Your task to perform on an android device: turn pop-ups off in chrome Image 0: 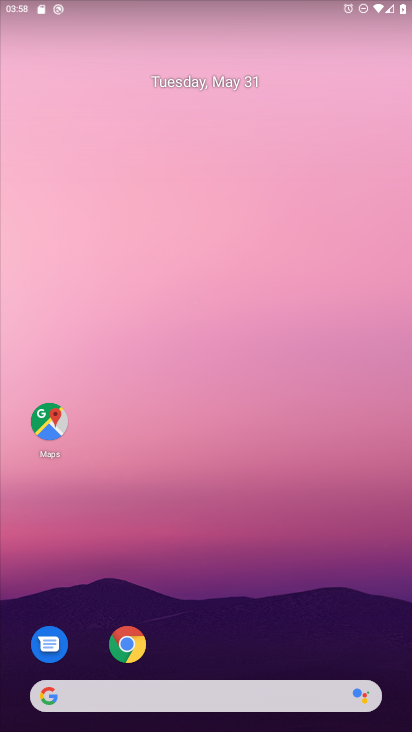
Step 0: drag from (276, 347) to (260, 32)
Your task to perform on an android device: turn pop-ups off in chrome Image 1: 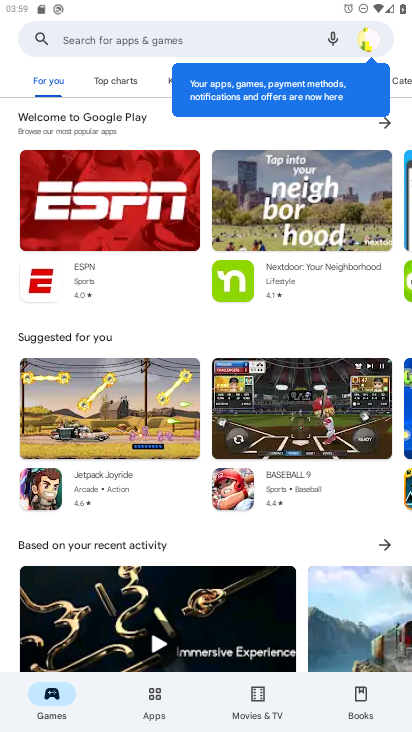
Step 1: press home button
Your task to perform on an android device: turn pop-ups off in chrome Image 2: 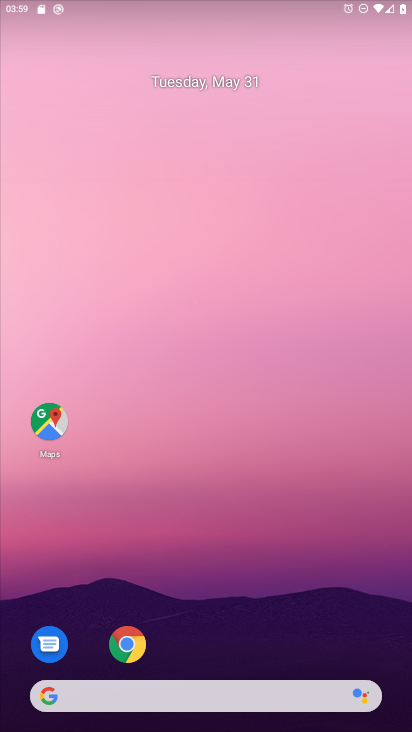
Step 2: drag from (310, 423) to (303, 33)
Your task to perform on an android device: turn pop-ups off in chrome Image 3: 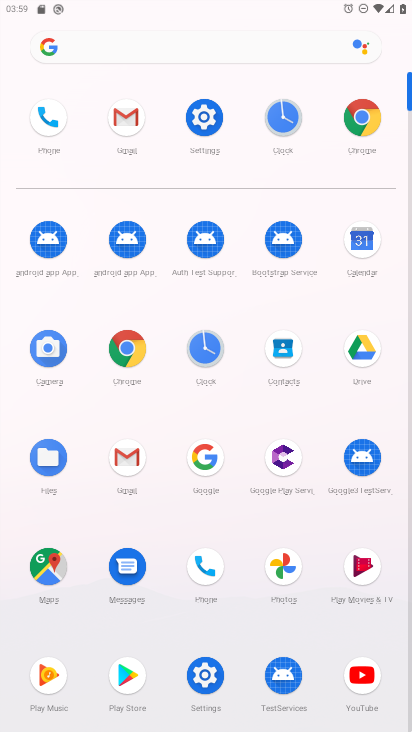
Step 3: click (126, 353)
Your task to perform on an android device: turn pop-ups off in chrome Image 4: 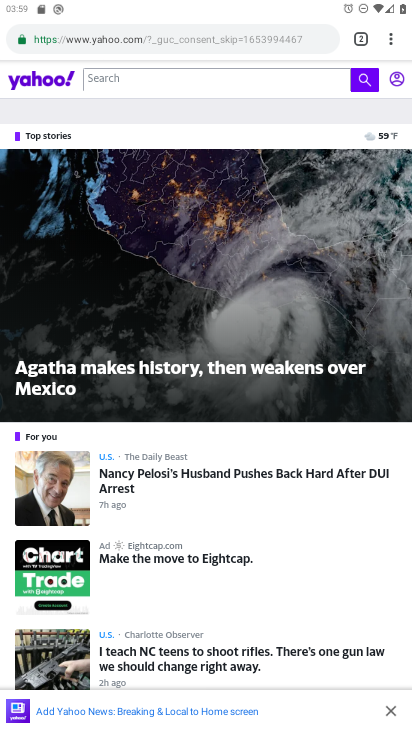
Step 4: drag from (390, 41) to (269, 474)
Your task to perform on an android device: turn pop-ups off in chrome Image 5: 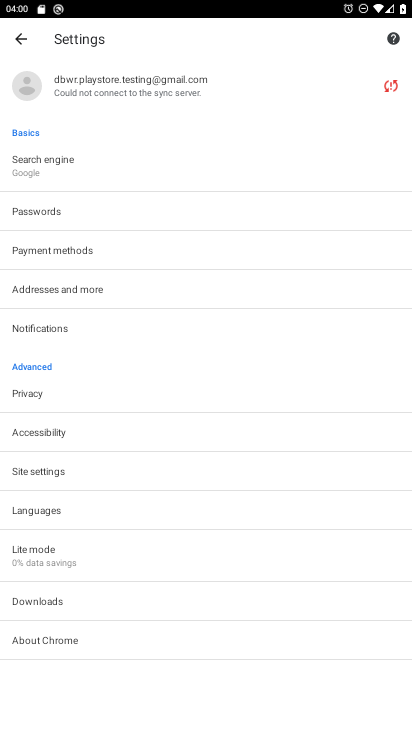
Step 5: click (64, 472)
Your task to perform on an android device: turn pop-ups off in chrome Image 6: 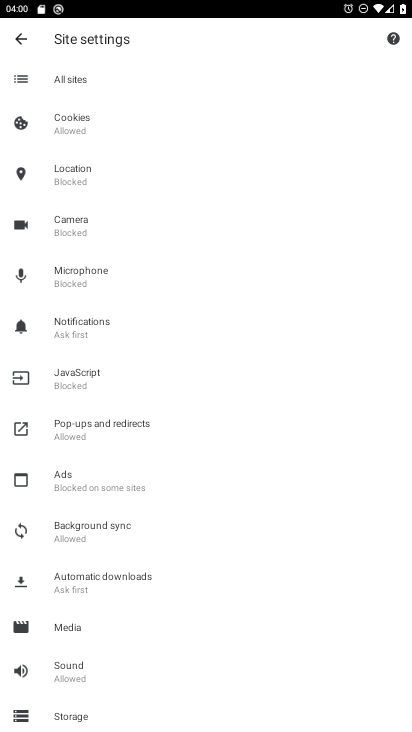
Step 6: click (92, 428)
Your task to perform on an android device: turn pop-ups off in chrome Image 7: 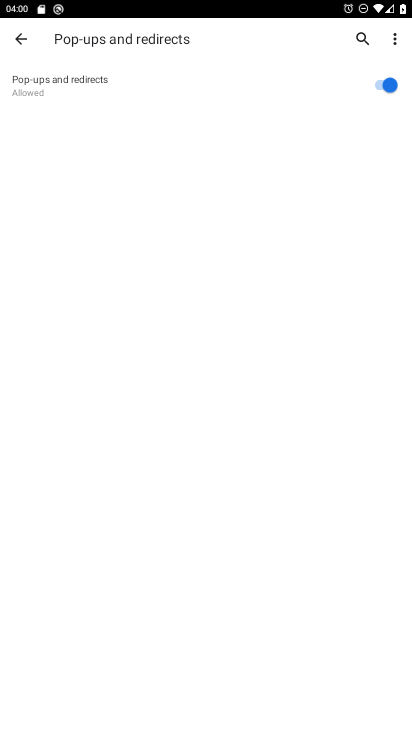
Step 7: click (381, 87)
Your task to perform on an android device: turn pop-ups off in chrome Image 8: 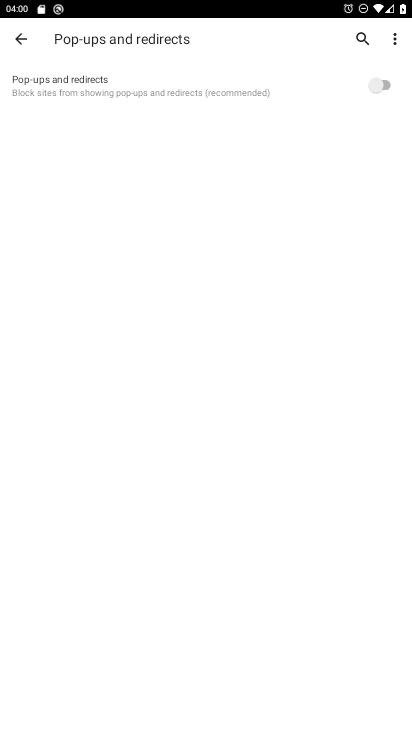
Step 8: task complete